Your task to perform on an android device: Go to Wikipedia Image 0: 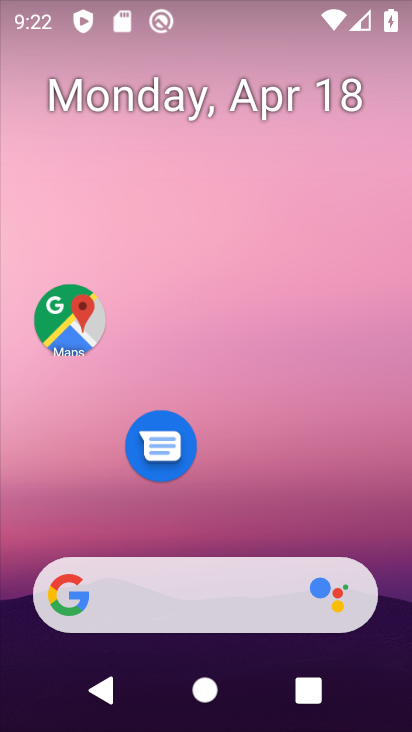
Step 0: press home button
Your task to perform on an android device: Go to Wikipedia Image 1: 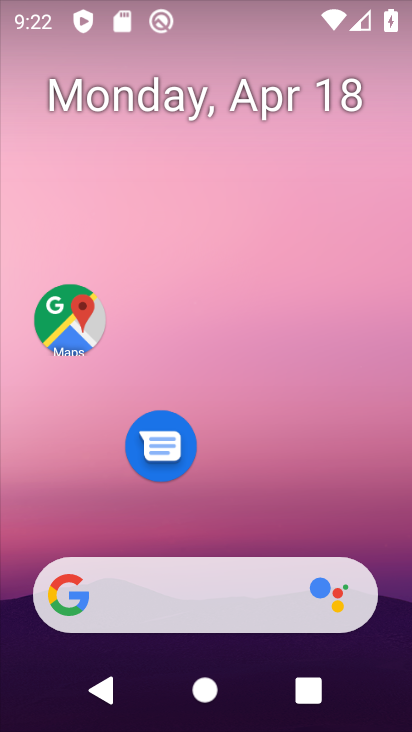
Step 1: drag from (211, 524) to (217, 0)
Your task to perform on an android device: Go to Wikipedia Image 2: 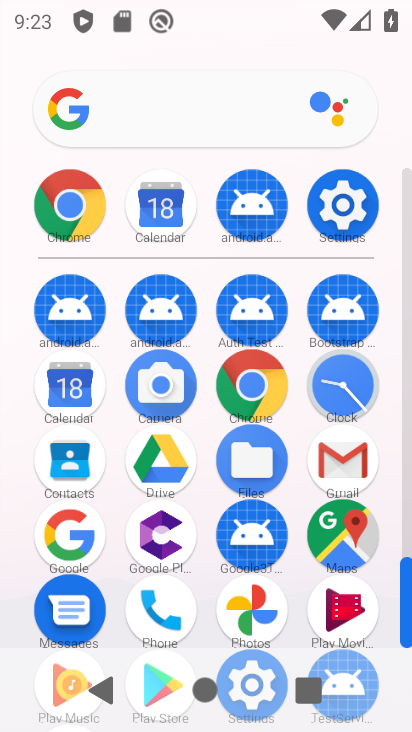
Step 2: click (66, 199)
Your task to perform on an android device: Go to Wikipedia Image 3: 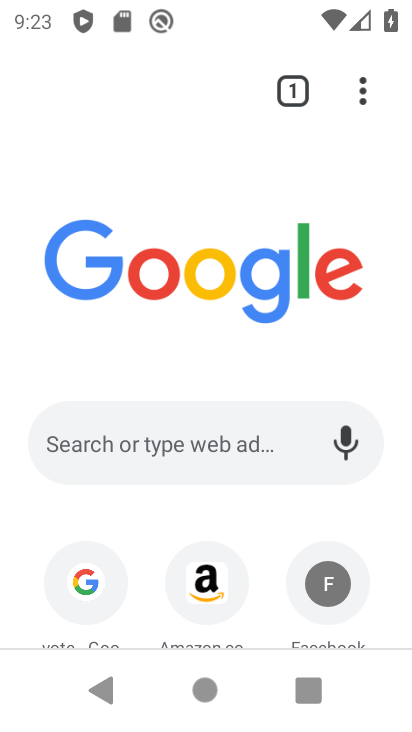
Step 3: drag from (264, 507) to (264, 55)
Your task to perform on an android device: Go to Wikipedia Image 4: 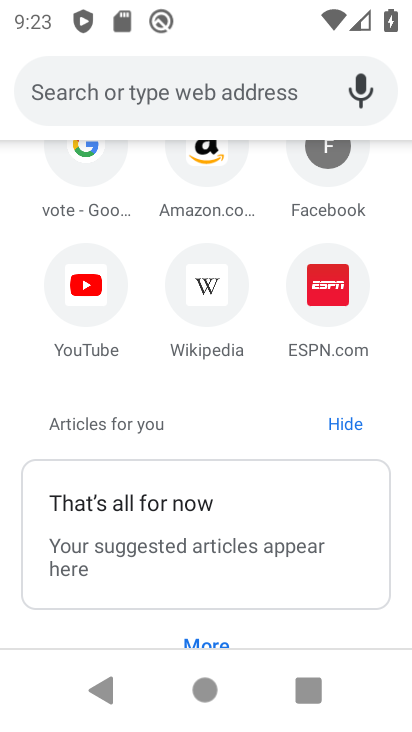
Step 4: click (205, 273)
Your task to perform on an android device: Go to Wikipedia Image 5: 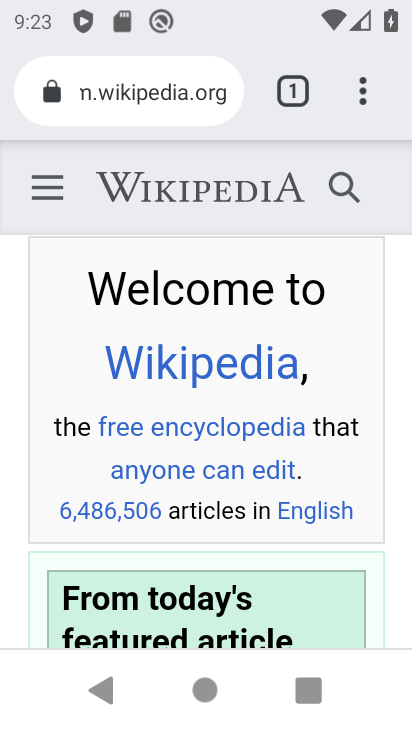
Step 5: task complete